Your task to perform on an android device: change the clock display to digital Image 0: 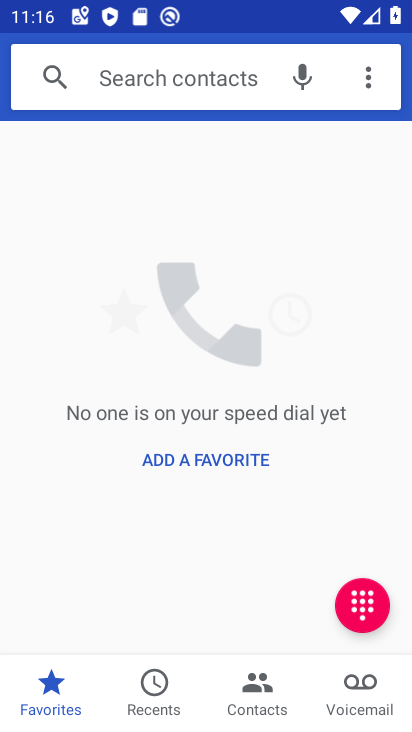
Step 0: press back button
Your task to perform on an android device: change the clock display to digital Image 1: 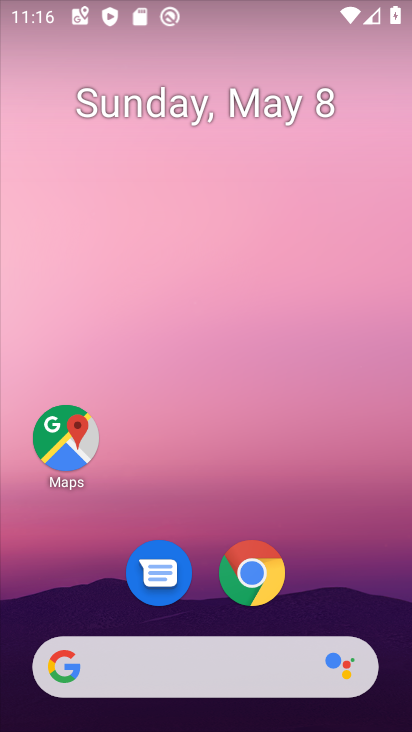
Step 1: drag from (338, 578) to (272, 27)
Your task to perform on an android device: change the clock display to digital Image 2: 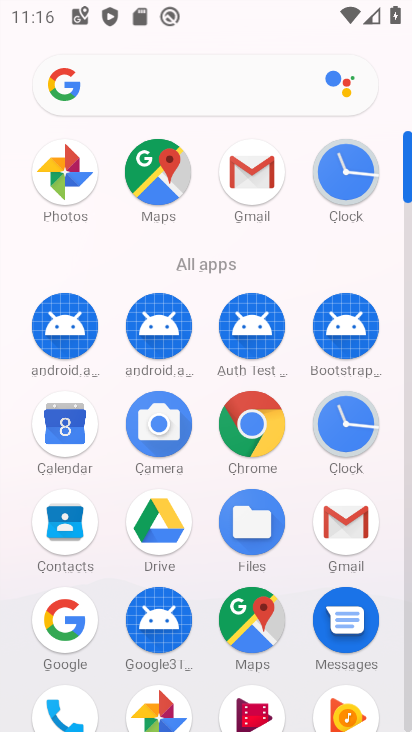
Step 2: drag from (15, 535) to (17, 288)
Your task to perform on an android device: change the clock display to digital Image 3: 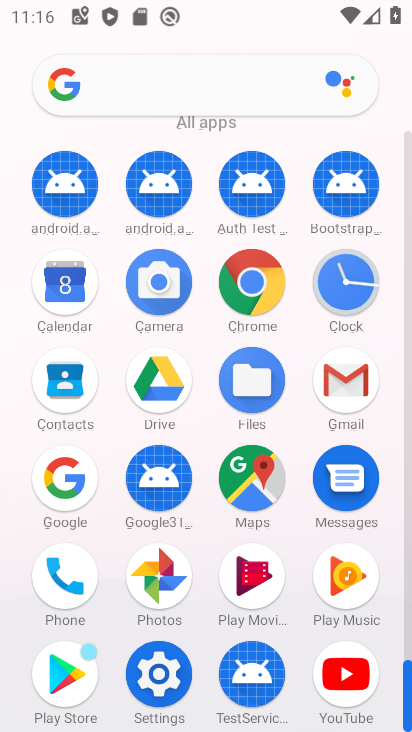
Step 3: click (343, 278)
Your task to perform on an android device: change the clock display to digital Image 4: 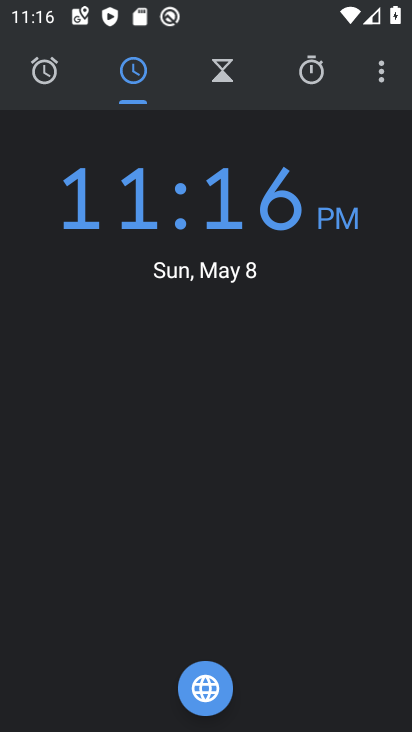
Step 4: click (376, 77)
Your task to perform on an android device: change the clock display to digital Image 5: 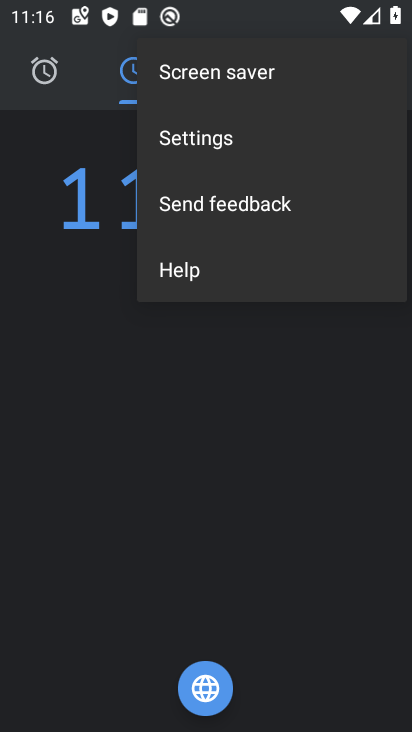
Step 5: click (224, 142)
Your task to perform on an android device: change the clock display to digital Image 6: 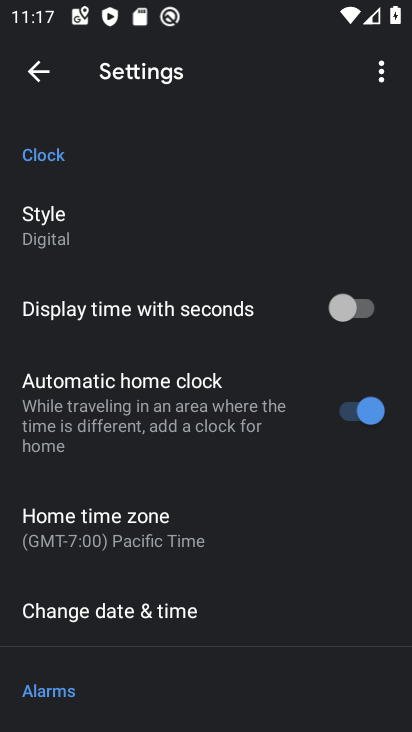
Step 6: task complete